Your task to perform on an android device: turn on location history Image 0: 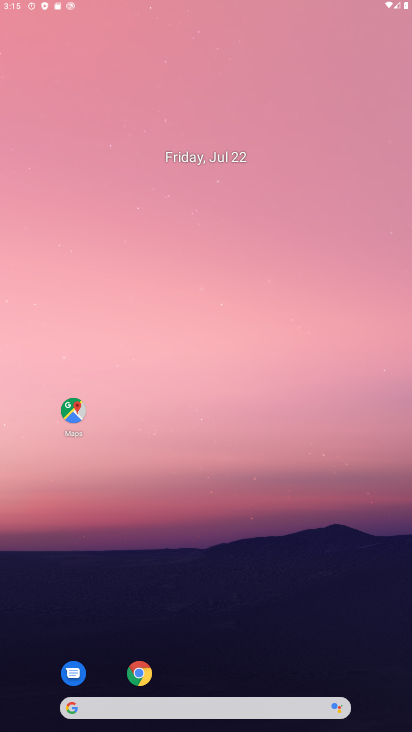
Step 0: click (269, 224)
Your task to perform on an android device: turn on location history Image 1: 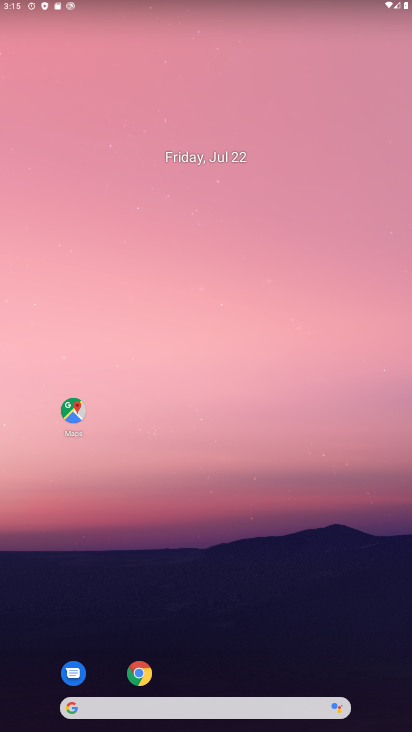
Step 1: drag from (174, 671) to (258, 218)
Your task to perform on an android device: turn on location history Image 2: 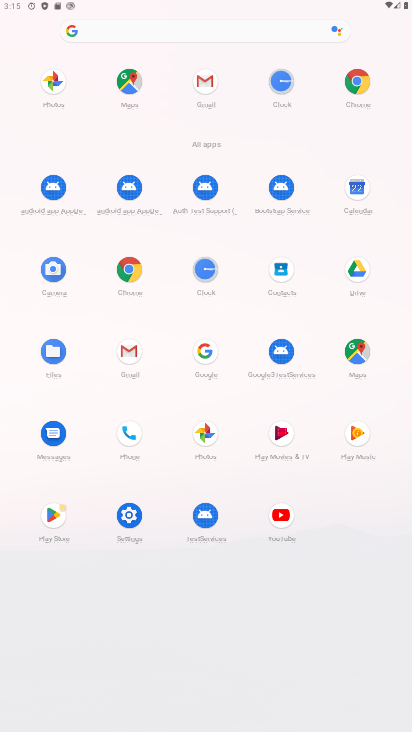
Step 2: click (115, 521)
Your task to perform on an android device: turn on location history Image 3: 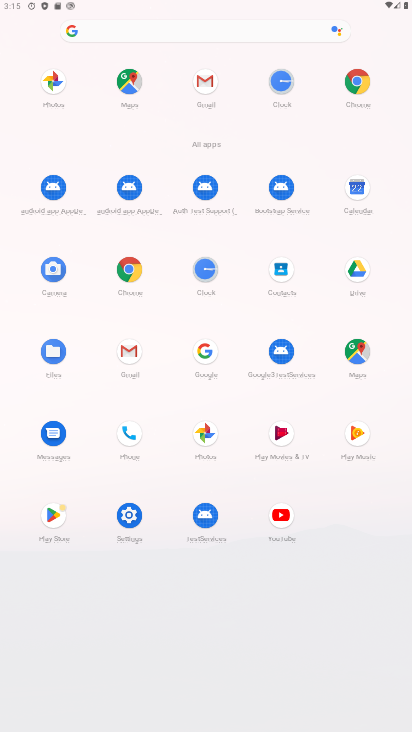
Step 3: click (115, 520)
Your task to perform on an android device: turn on location history Image 4: 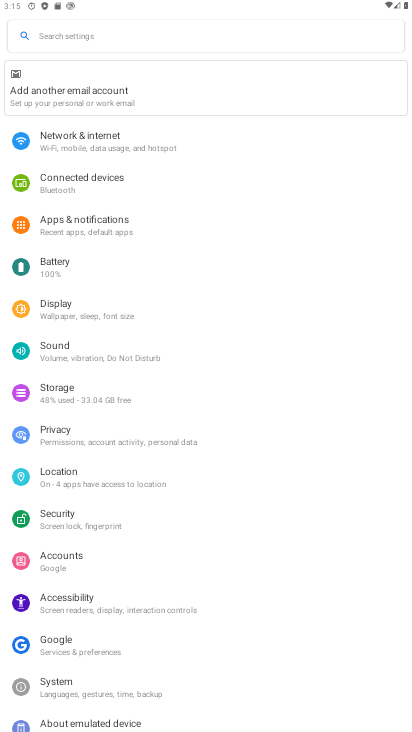
Step 4: click (222, 204)
Your task to perform on an android device: turn on location history Image 5: 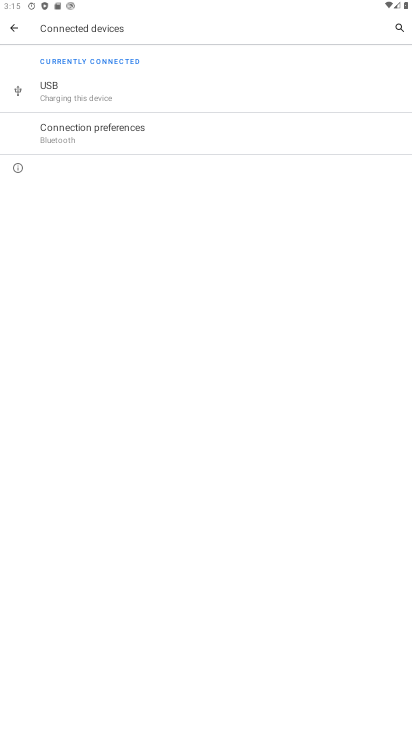
Step 5: click (7, 25)
Your task to perform on an android device: turn on location history Image 6: 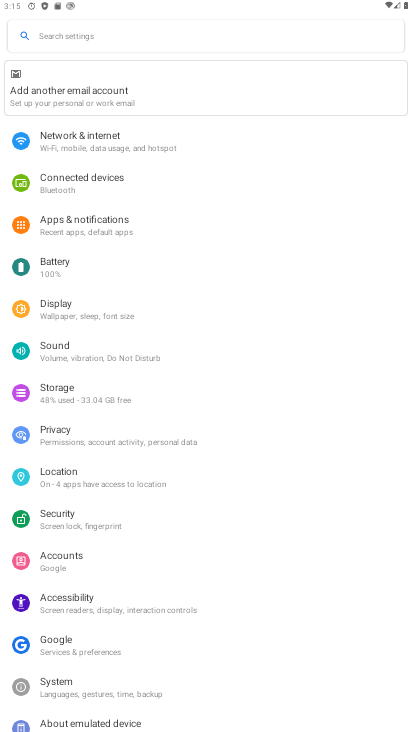
Step 6: click (78, 467)
Your task to perform on an android device: turn on location history Image 7: 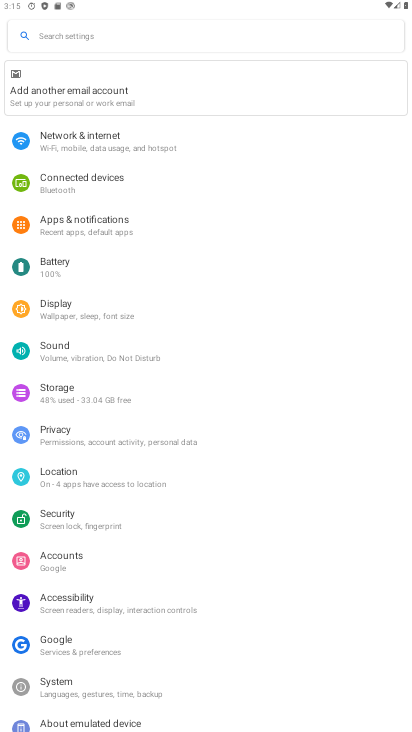
Step 7: click (78, 467)
Your task to perform on an android device: turn on location history Image 8: 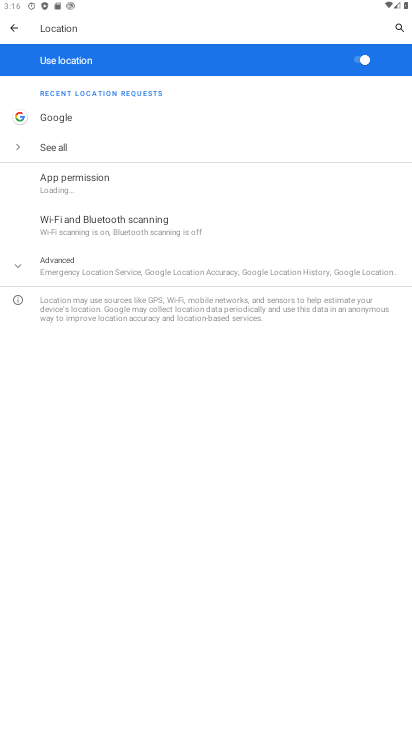
Step 8: drag from (202, 441) to (225, 141)
Your task to perform on an android device: turn on location history Image 9: 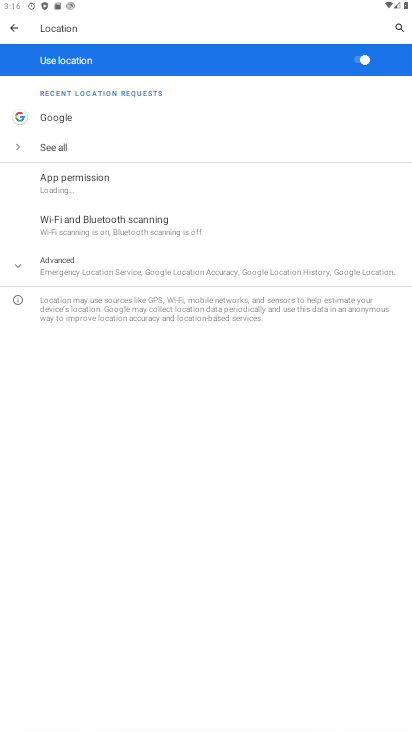
Step 9: click (63, 273)
Your task to perform on an android device: turn on location history Image 10: 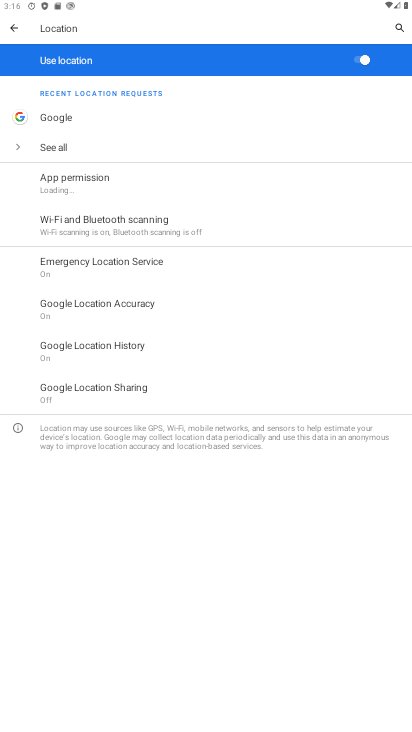
Step 10: drag from (202, 528) to (206, 238)
Your task to perform on an android device: turn on location history Image 11: 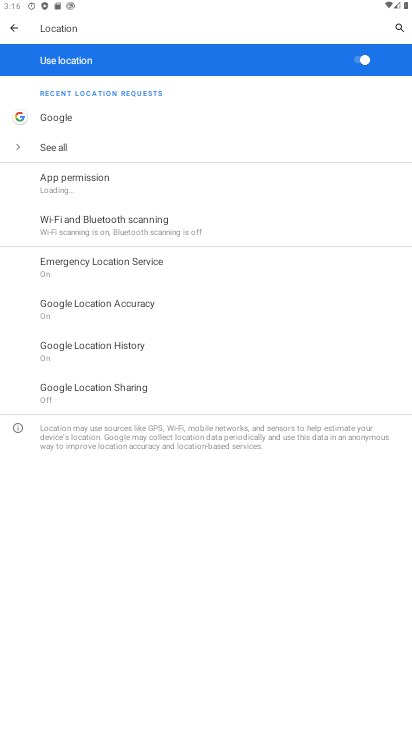
Step 11: click (96, 352)
Your task to perform on an android device: turn on location history Image 12: 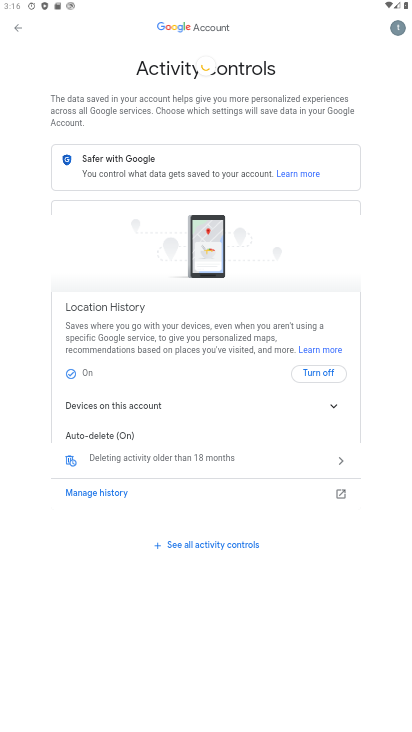
Step 12: task complete